Your task to perform on an android device: Go to Yahoo.com Image 0: 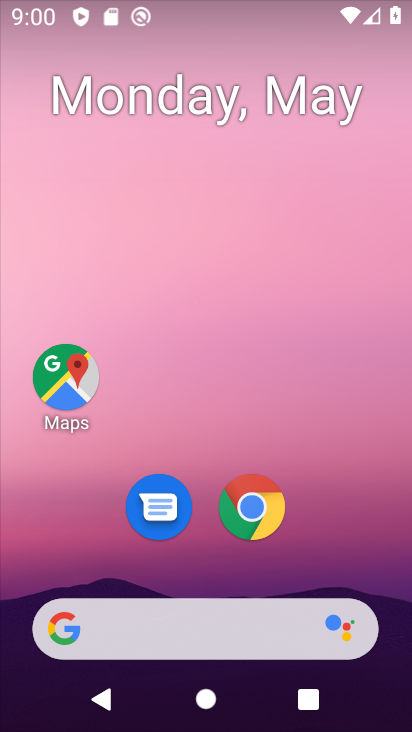
Step 0: drag from (207, 565) to (236, 8)
Your task to perform on an android device: Go to Yahoo.com Image 1: 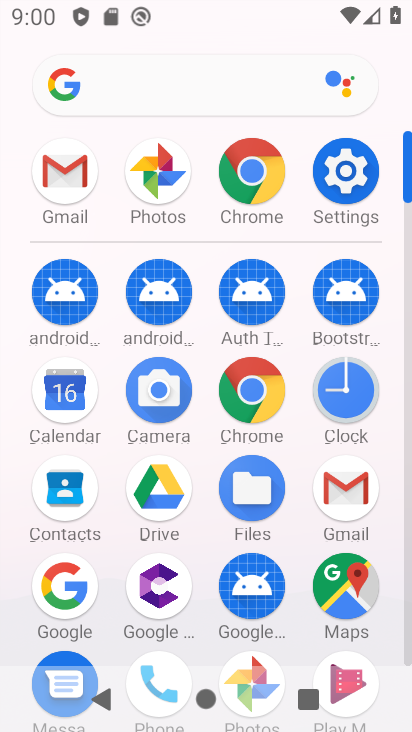
Step 1: click (261, 403)
Your task to perform on an android device: Go to Yahoo.com Image 2: 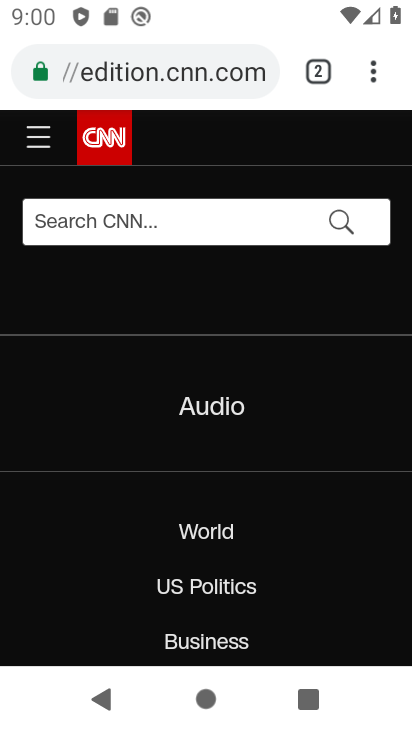
Step 2: click (198, 71)
Your task to perform on an android device: Go to Yahoo.com Image 3: 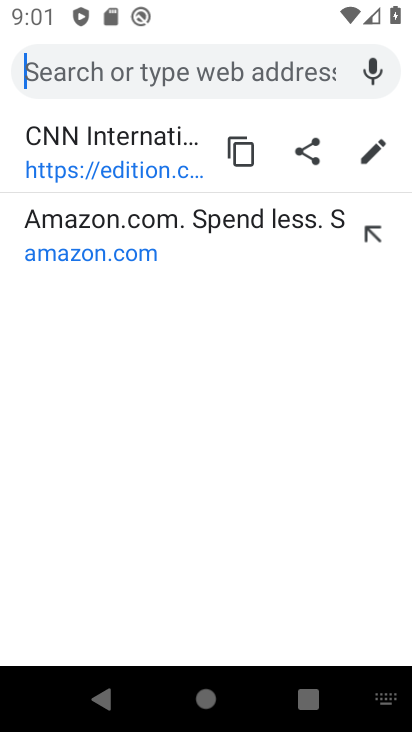
Step 3: type "Yahoo.com"
Your task to perform on an android device: Go to Yahoo.com Image 4: 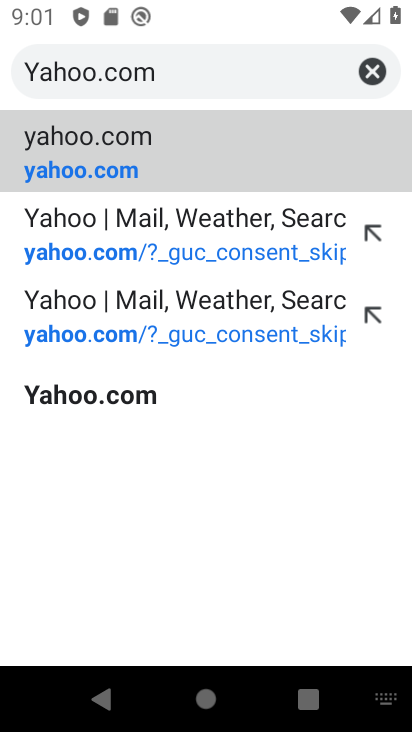
Step 4: click (89, 136)
Your task to perform on an android device: Go to Yahoo.com Image 5: 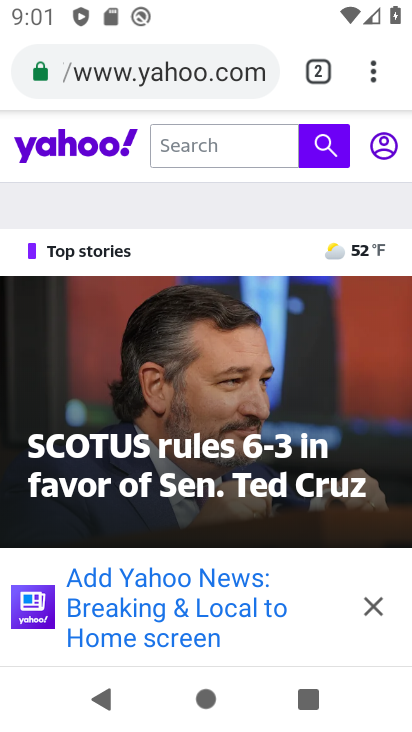
Step 5: click (379, 608)
Your task to perform on an android device: Go to Yahoo.com Image 6: 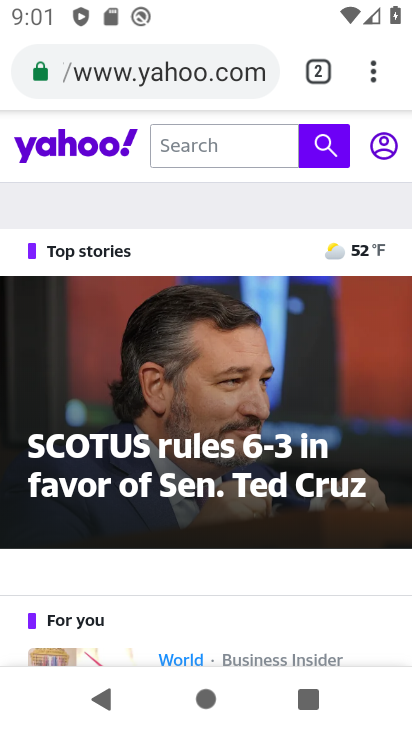
Step 6: task complete